Your task to perform on an android device: Open Reddit.com Image 0: 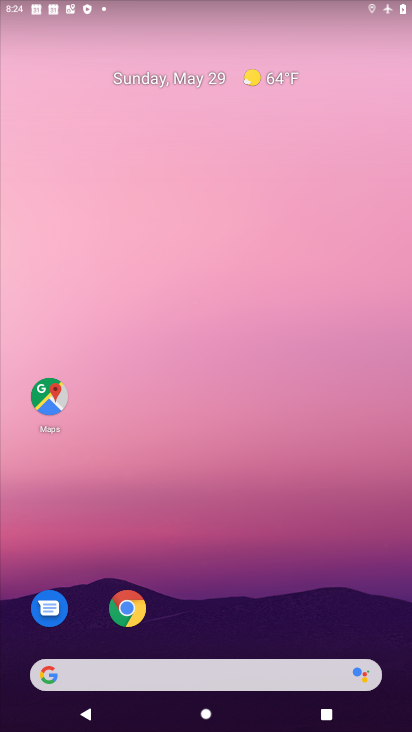
Step 0: click (128, 615)
Your task to perform on an android device: Open Reddit.com Image 1: 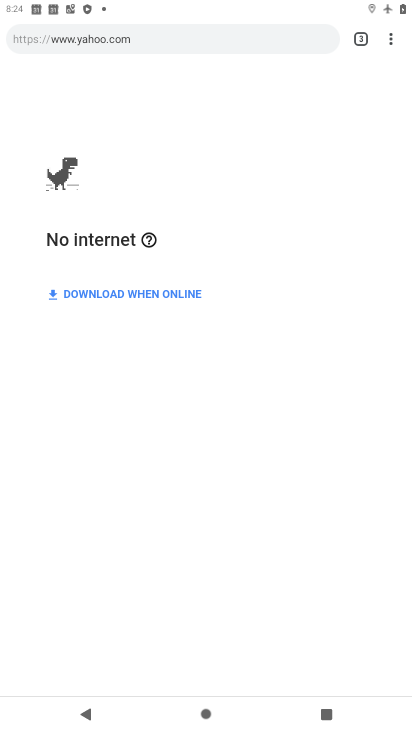
Step 1: click (393, 46)
Your task to perform on an android device: Open Reddit.com Image 2: 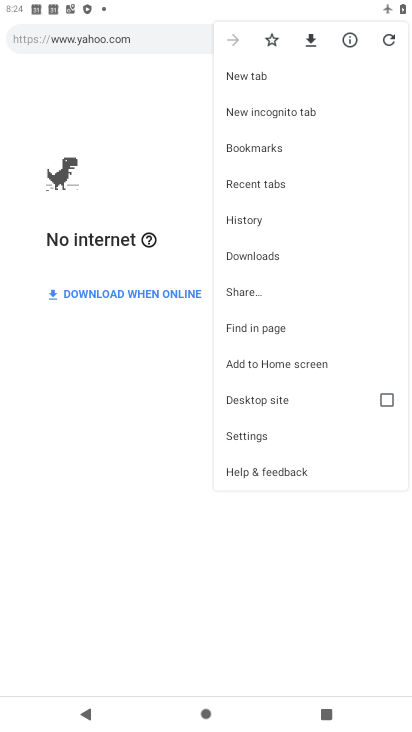
Step 2: click (251, 75)
Your task to perform on an android device: Open Reddit.com Image 3: 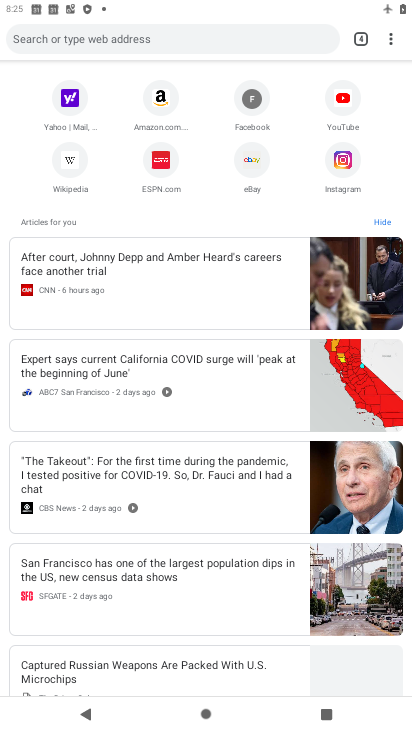
Step 3: click (126, 42)
Your task to perform on an android device: Open Reddit.com Image 4: 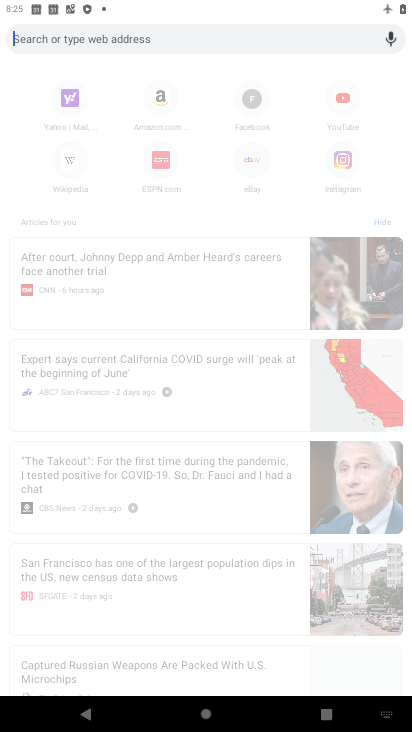
Step 4: type "reddit.com"
Your task to perform on an android device: Open Reddit.com Image 5: 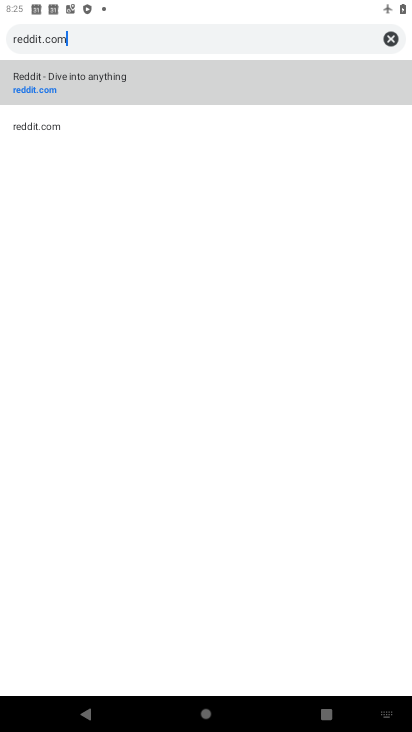
Step 5: click (42, 89)
Your task to perform on an android device: Open Reddit.com Image 6: 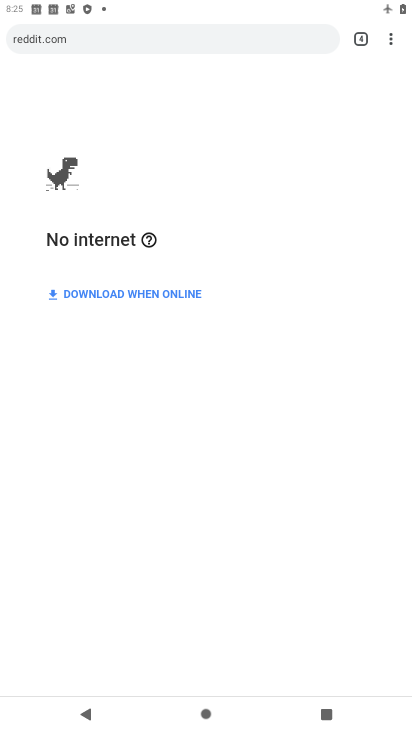
Step 6: task complete